Your task to perform on an android device: Go to internet settings Image 0: 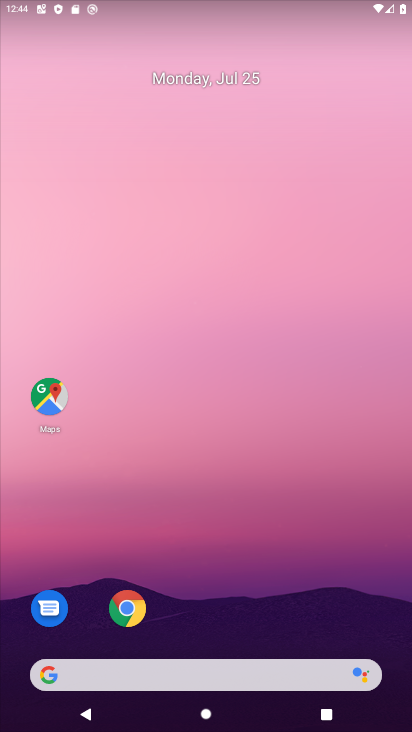
Step 0: drag from (236, 546) to (221, 1)
Your task to perform on an android device: Go to internet settings Image 1: 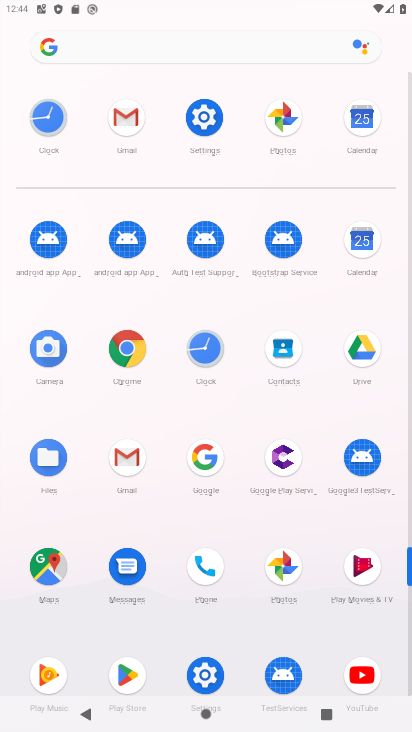
Step 1: click (214, 114)
Your task to perform on an android device: Go to internet settings Image 2: 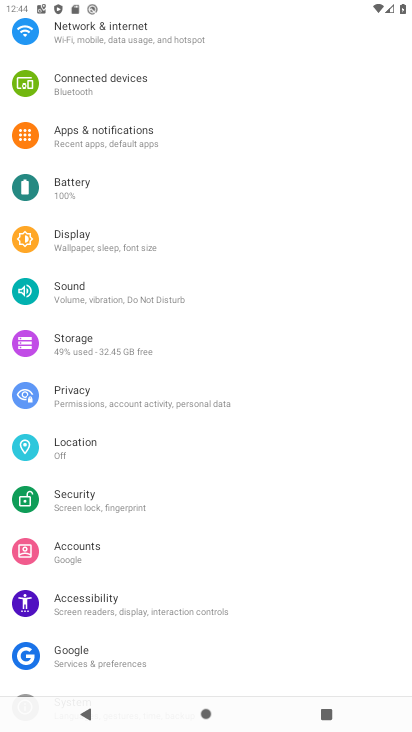
Step 2: click (117, 42)
Your task to perform on an android device: Go to internet settings Image 3: 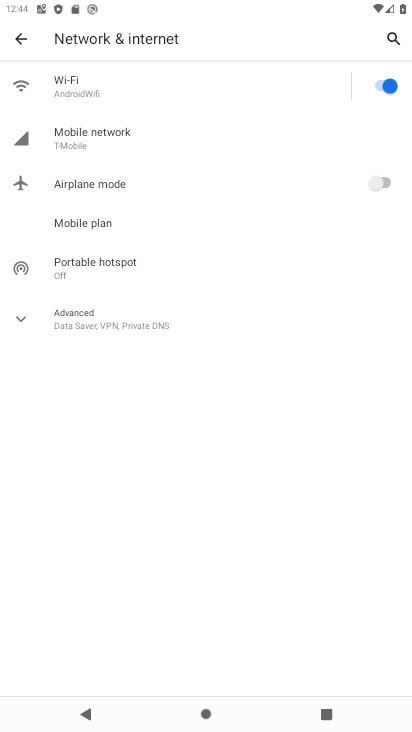
Step 3: click (18, 327)
Your task to perform on an android device: Go to internet settings Image 4: 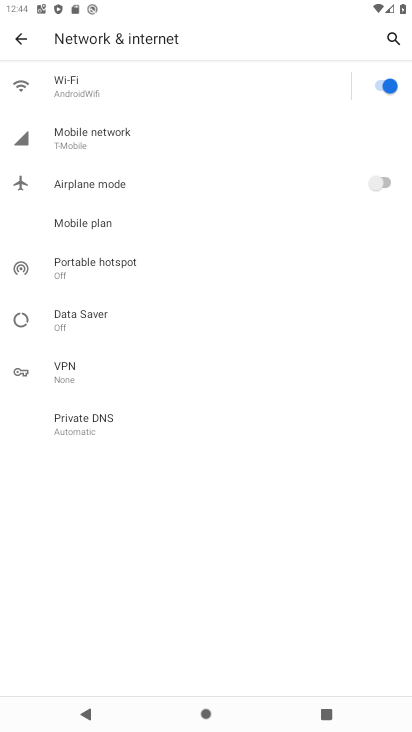
Step 4: task complete